Your task to perform on an android device: Show me popular games on the Play Store Image 0: 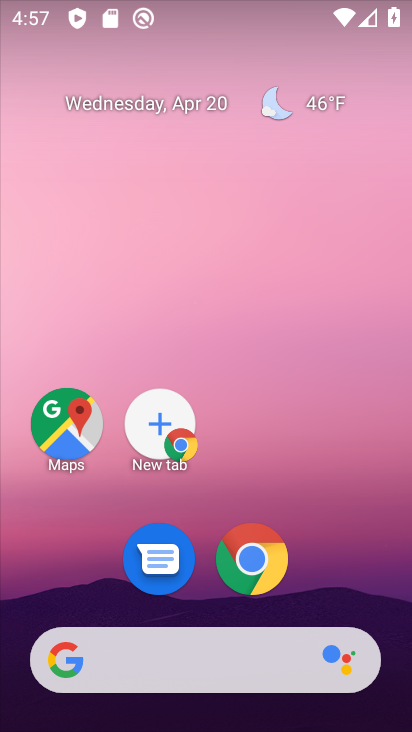
Step 0: drag from (324, 557) to (303, 109)
Your task to perform on an android device: Show me popular games on the Play Store Image 1: 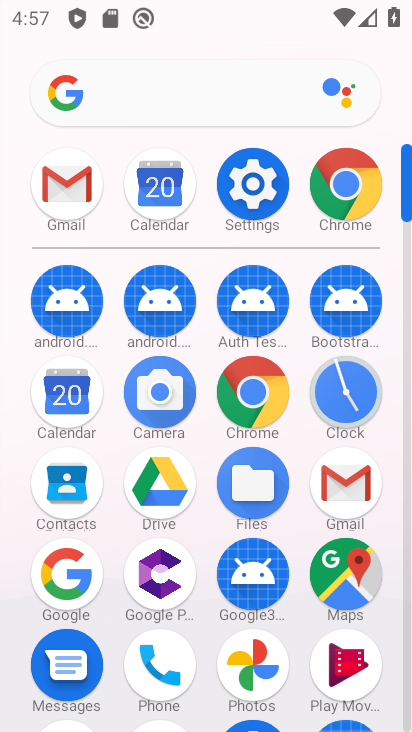
Step 1: click (407, 280)
Your task to perform on an android device: Show me popular games on the Play Store Image 2: 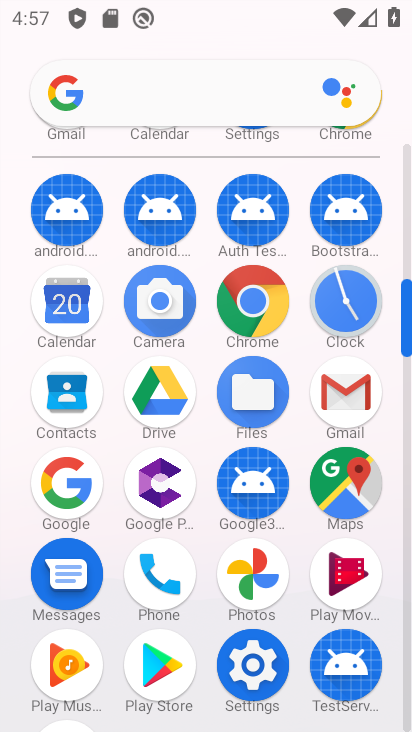
Step 2: click (167, 675)
Your task to perform on an android device: Show me popular games on the Play Store Image 3: 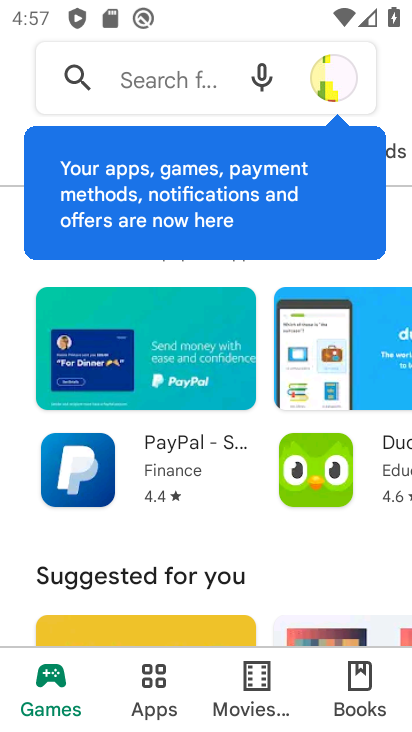
Step 3: click (337, 187)
Your task to perform on an android device: Show me popular games on the Play Store Image 4: 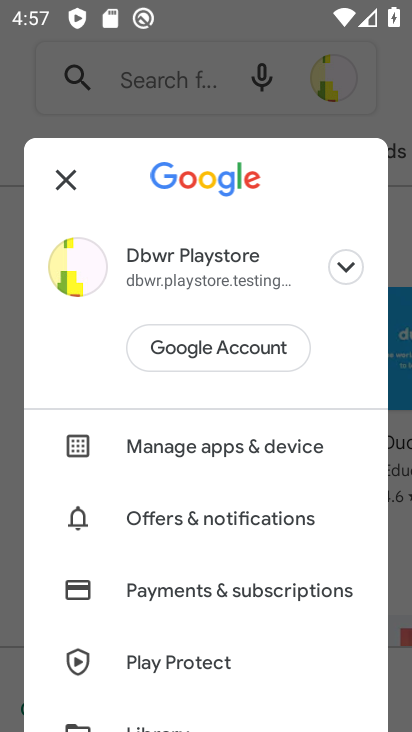
Step 4: click (58, 184)
Your task to perform on an android device: Show me popular games on the Play Store Image 5: 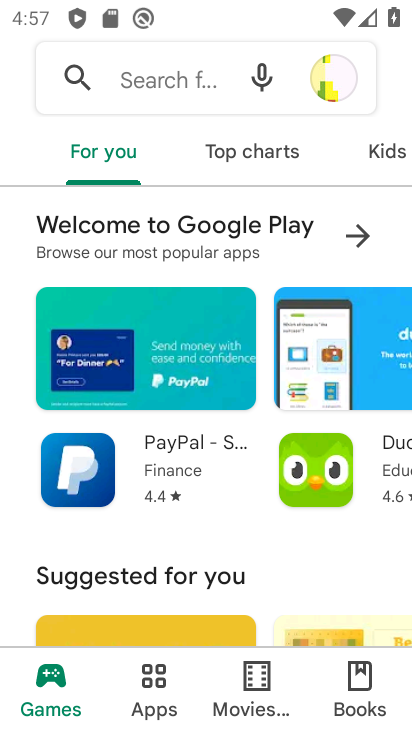
Step 5: click (229, 156)
Your task to perform on an android device: Show me popular games on the Play Store Image 6: 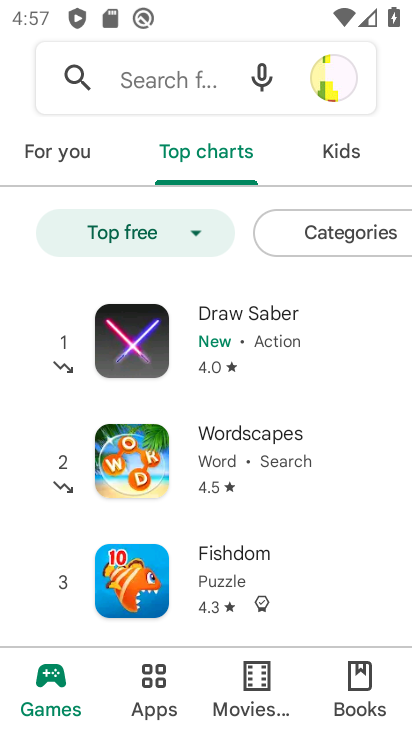
Step 6: task complete